Your task to perform on an android device: snooze an email in the gmail app Image 0: 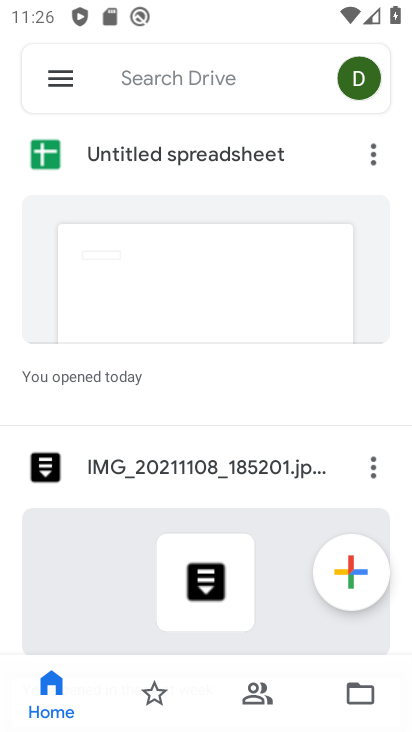
Step 0: press home button
Your task to perform on an android device: snooze an email in the gmail app Image 1: 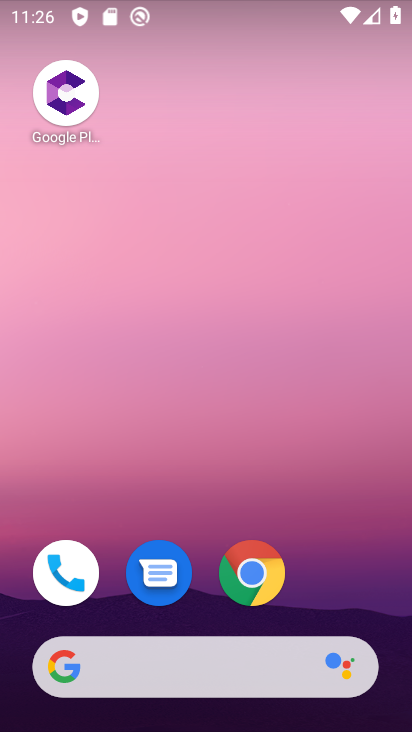
Step 1: drag from (348, 613) to (324, 142)
Your task to perform on an android device: snooze an email in the gmail app Image 2: 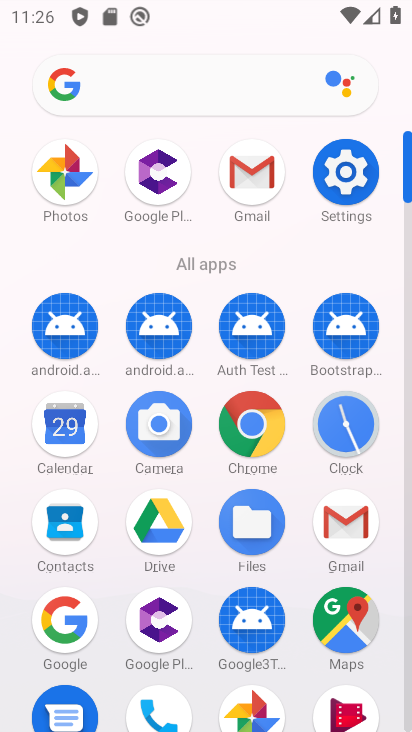
Step 2: click (238, 160)
Your task to perform on an android device: snooze an email in the gmail app Image 3: 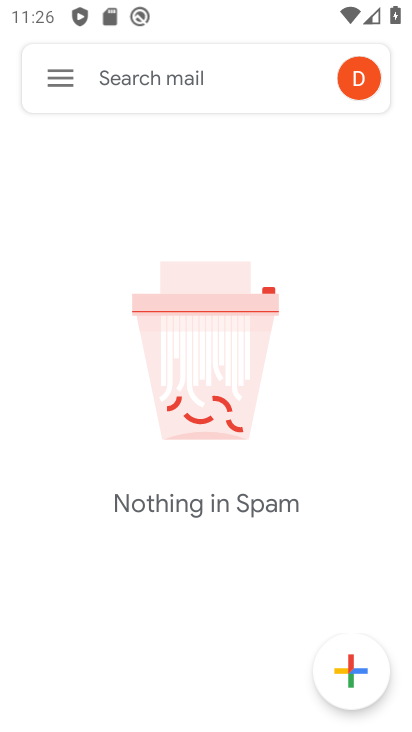
Step 3: click (49, 77)
Your task to perform on an android device: snooze an email in the gmail app Image 4: 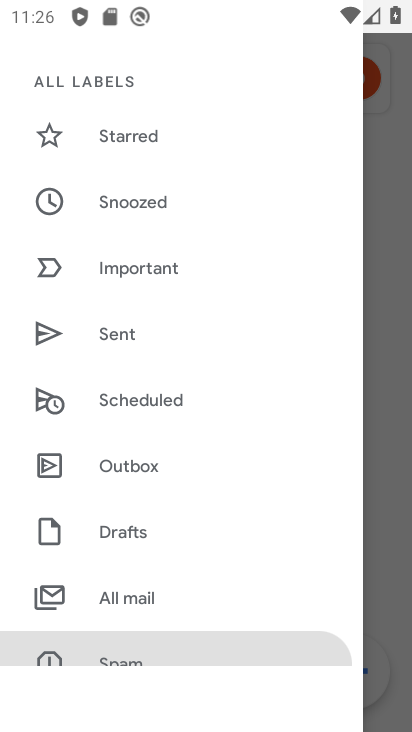
Step 4: click (118, 202)
Your task to perform on an android device: snooze an email in the gmail app Image 5: 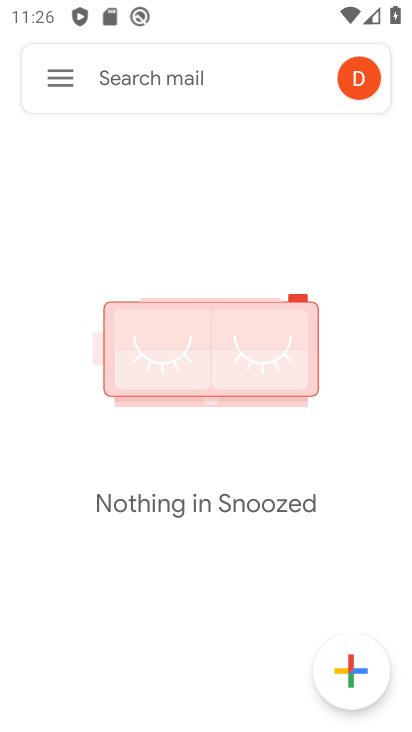
Step 5: task complete